Your task to perform on an android device: toggle show notifications on the lock screen Image 0: 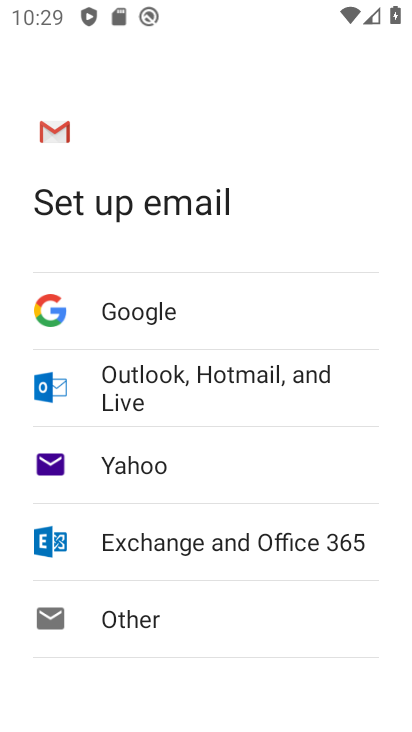
Step 0: task complete